Your task to perform on an android device: Open the Play Movies app and select the watchlist tab. Image 0: 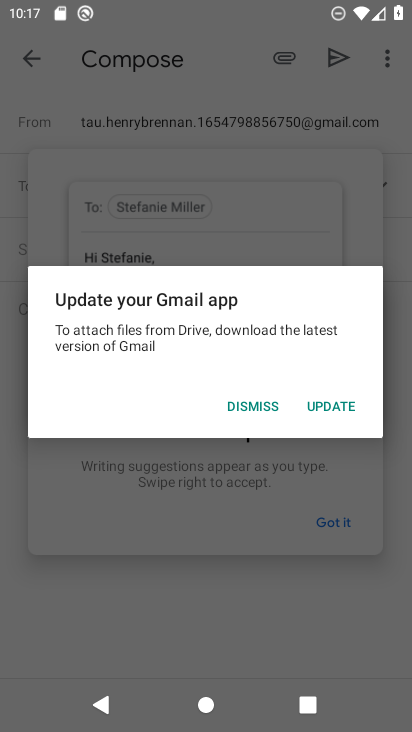
Step 0: click (261, 403)
Your task to perform on an android device: Open the Play Movies app and select the watchlist tab. Image 1: 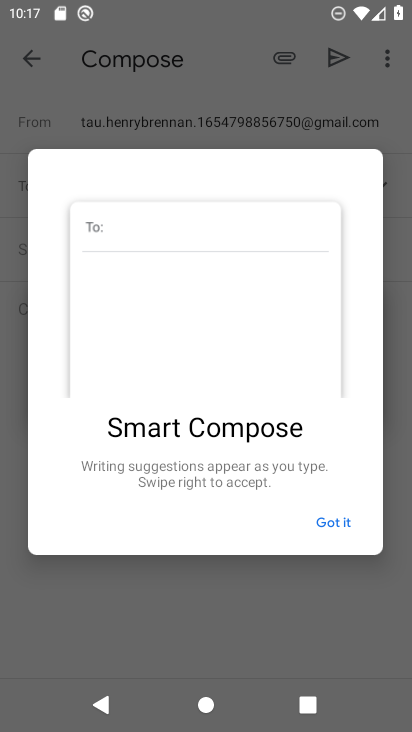
Step 1: press home button
Your task to perform on an android device: Open the Play Movies app and select the watchlist tab. Image 2: 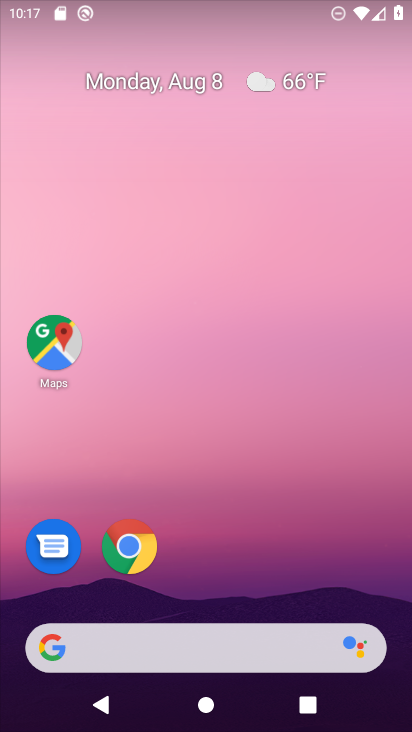
Step 2: drag from (215, 344) to (199, 253)
Your task to perform on an android device: Open the Play Movies app and select the watchlist tab. Image 3: 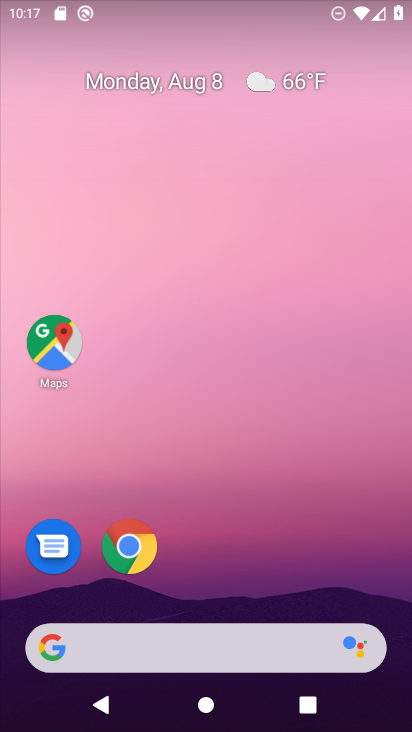
Step 3: click (115, 532)
Your task to perform on an android device: Open the Play Movies app and select the watchlist tab. Image 4: 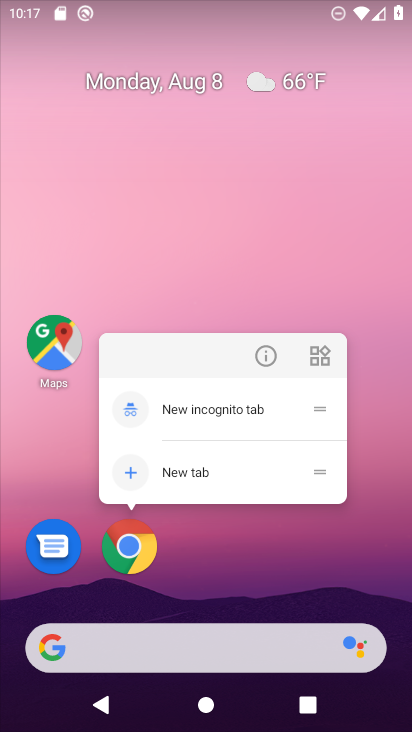
Step 4: click (114, 533)
Your task to perform on an android device: Open the Play Movies app and select the watchlist tab. Image 5: 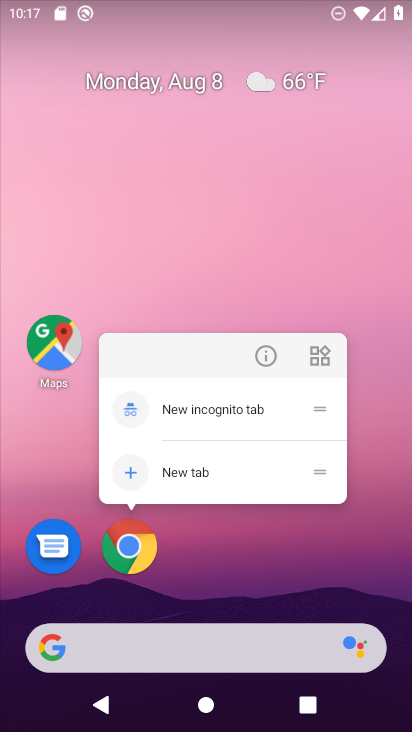
Step 5: click (142, 547)
Your task to perform on an android device: Open the Play Movies app and select the watchlist tab. Image 6: 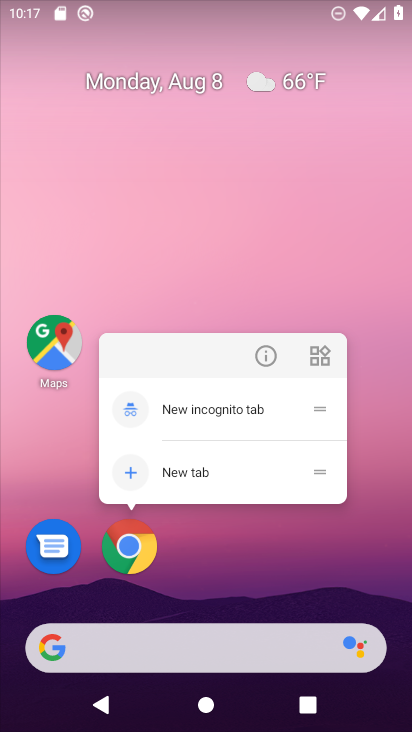
Step 6: click (122, 559)
Your task to perform on an android device: Open the Play Movies app and select the watchlist tab. Image 7: 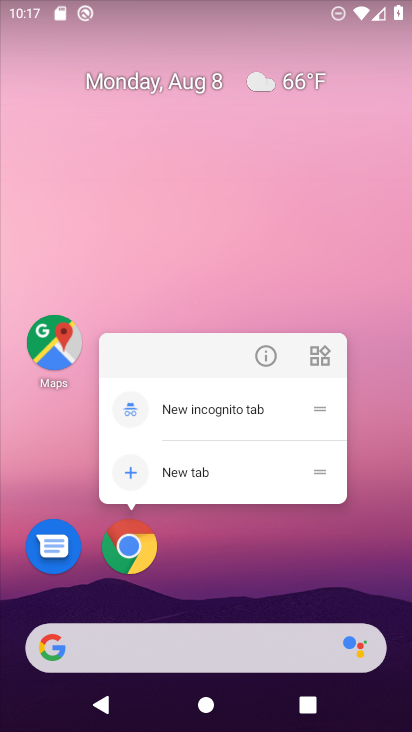
Step 7: click (125, 533)
Your task to perform on an android device: Open the Play Movies app and select the watchlist tab. Image 8: 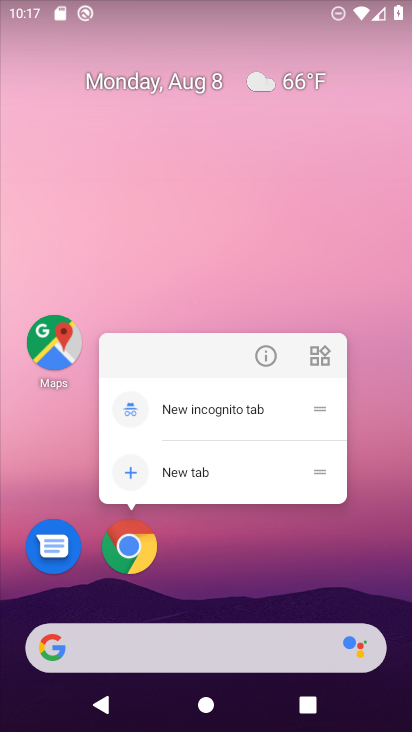
Step 8: click (125, 533)
Your task to perform on an android device: Open the Play Movies app and select the watchlist tab. Image 9: 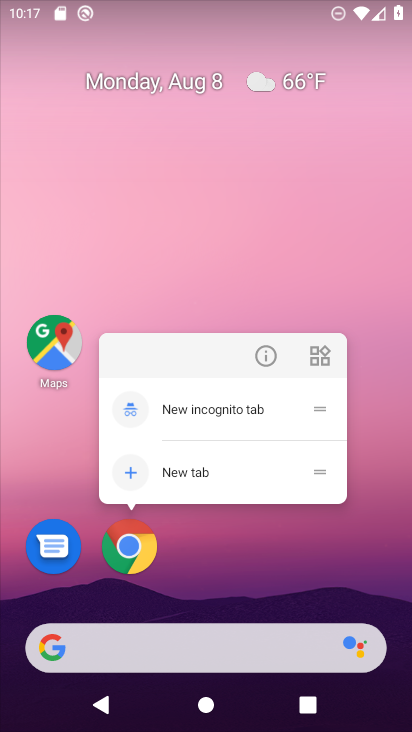
Step 9: click (122, 557)
Your task to perform on an android device: Open the Play Movies app and select the watchlist tab. Image 10: 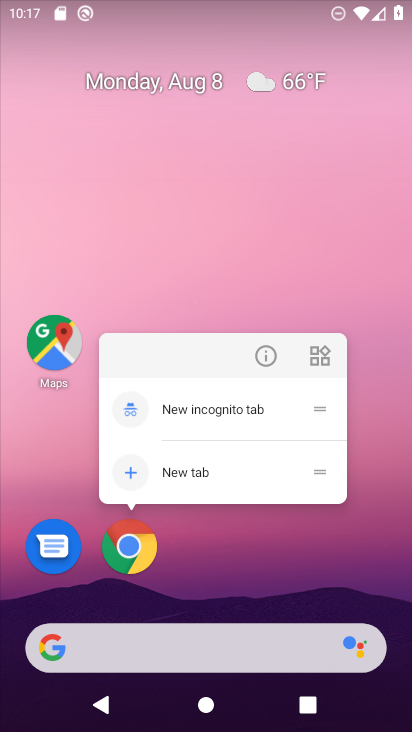
Step 10: click (171, 548)
Your task to perform on an android device: Open the Play Movies app and select the watchlist tab. Image 11: 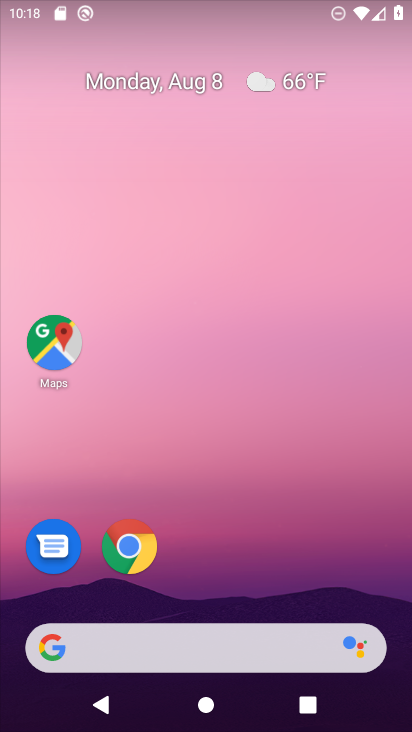
Step 11: click (159, 550)
Your task to perform on an android device: Open the Play Movies app and select the watchlist tab. Image 12: 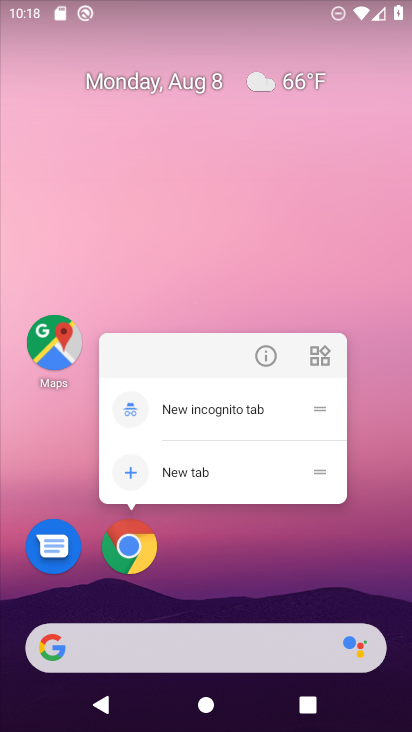
Step 12: click (143, 570)
Your task to perform on an android device: Open the Play Movies app and select the watchlist tab. Image 13: 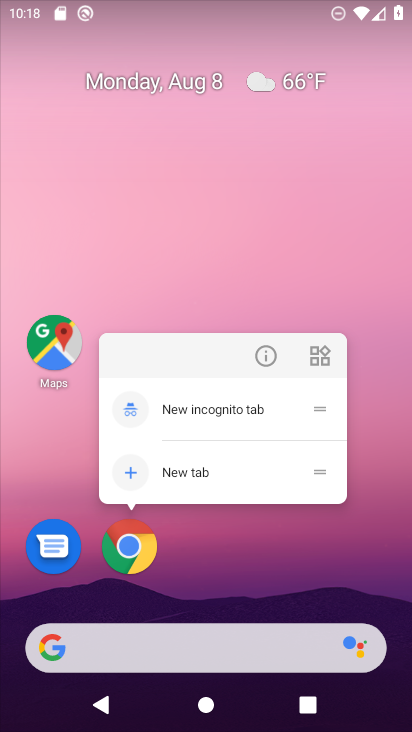
Step 13: click (135, 546)
Your task to perform on an android device: Open the Play Movies app and select the watchlist tab. Image 14: 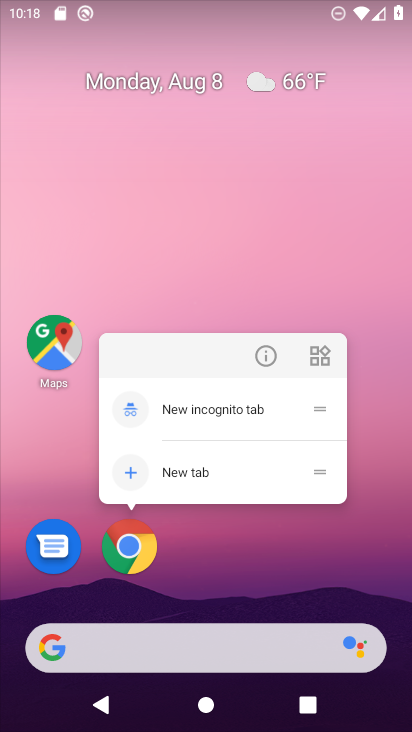
Step 14: task complete